Your task to perform on an android device: snooze an email in the gmail app Image 0: 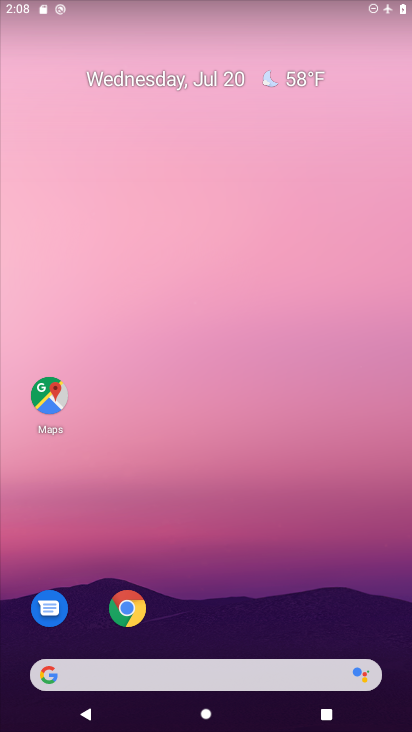
Step 0: drag from (222, 723) to (188, 251)
Your task to perform on an android device: snooze an email in the gmail app Image 1: 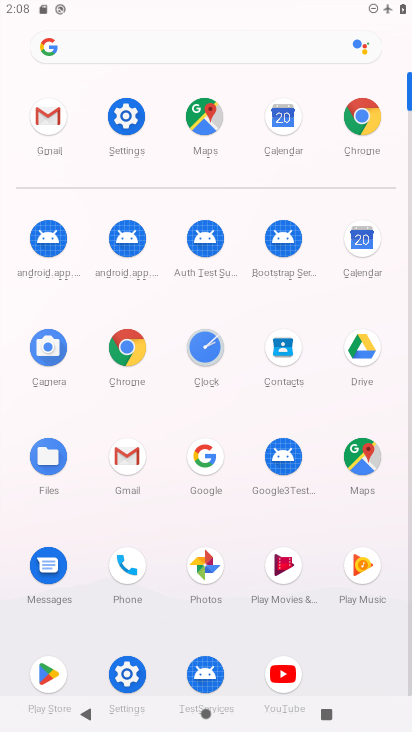
Step 1: click (124, 459)
Your task to perform on an android device: snooze an email in the gmail app Image 2: 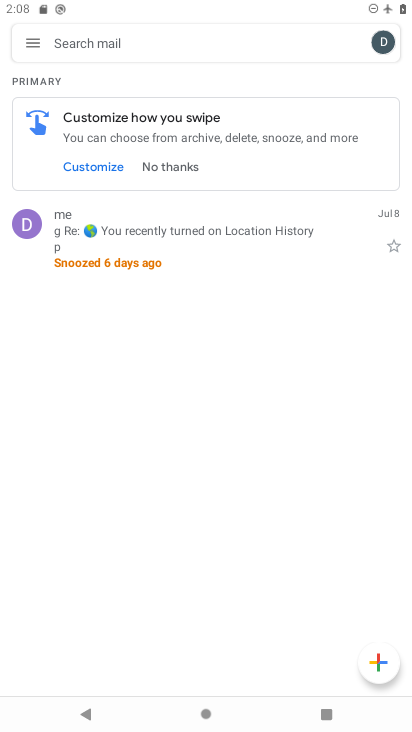
Step 2: click (156, 233)
Your task to perform on an android device: snooze an email in the gmail app Image 3: 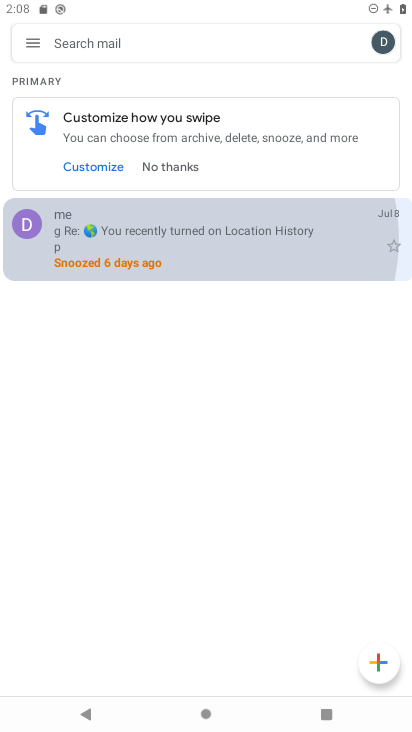
Step 3: click (157, 232)
Your task to perform on an android device: snooze an email in the gmail app Image 4: 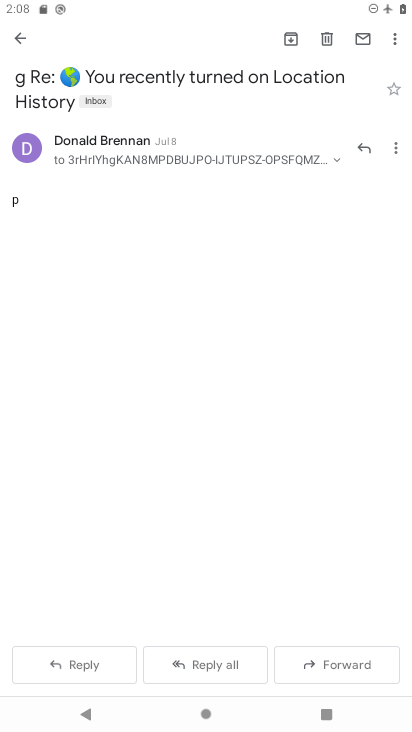
Step 4: click (397, 43)
Your task to perform on an android device: snooze an email in the gmail app Image 5: 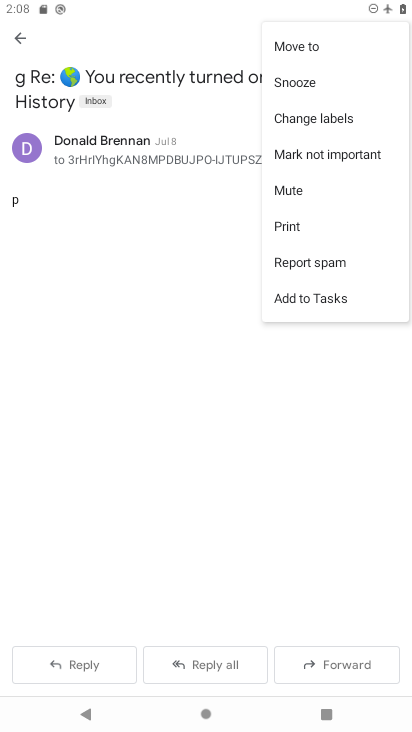
Step 5: click (313, 79)
Your task to perform on an android device: snooze an email in the gmail app Image 6: 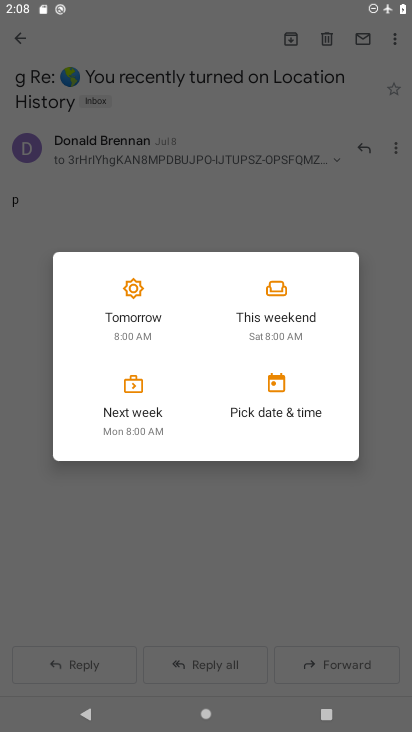
Step 6: click (118, 308)
Your task to perform on an android device: snooze an email in the gmail app Image 7: 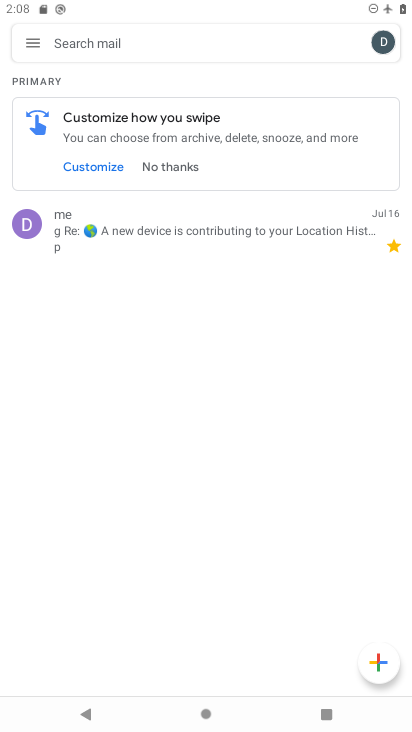
Step 7: task complete